Your task to perform on an android device: change keyboard looks Image 0: 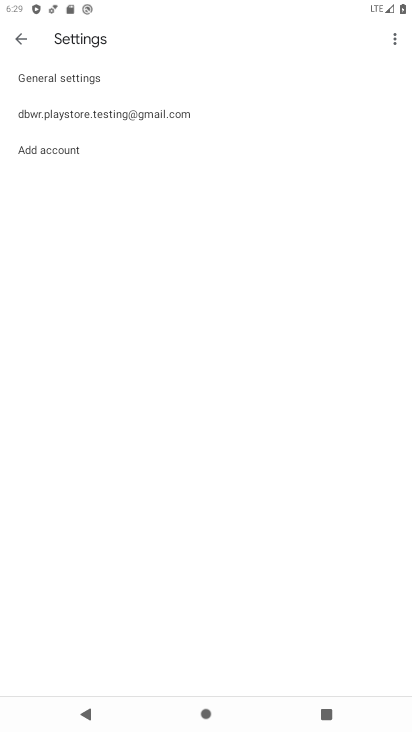
Step 0: press home button
Your task to perform on an android device: change keyboard looks Image 1: 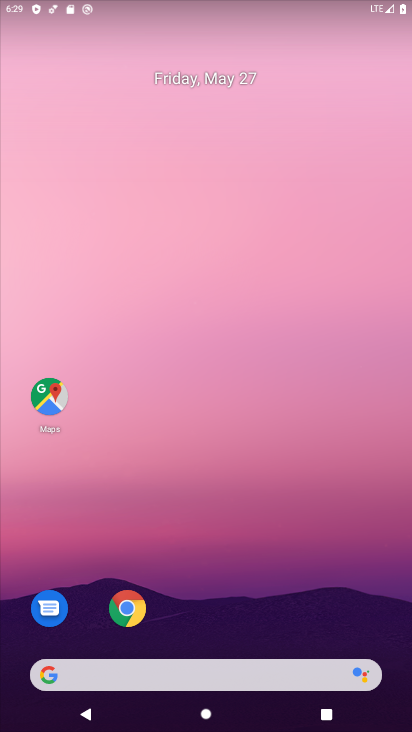
Step 1: drag from (210, 609) to (243, 36)
Your task to perform on an android device: change keyboard looks Image 2: 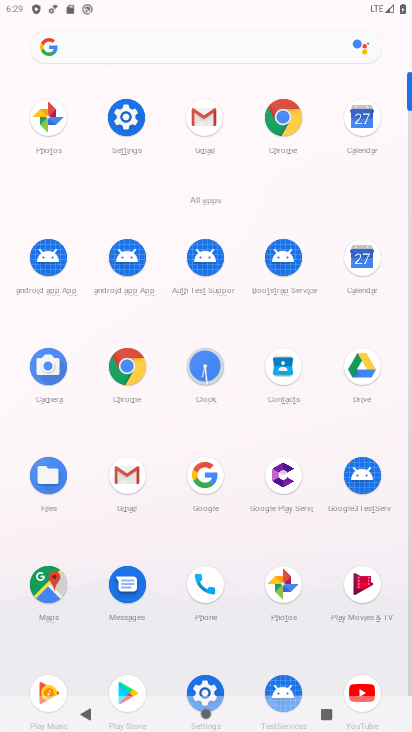
Step 2: click (123, 113)
Your task to perform on an android device: change keyboard looks Image 3: 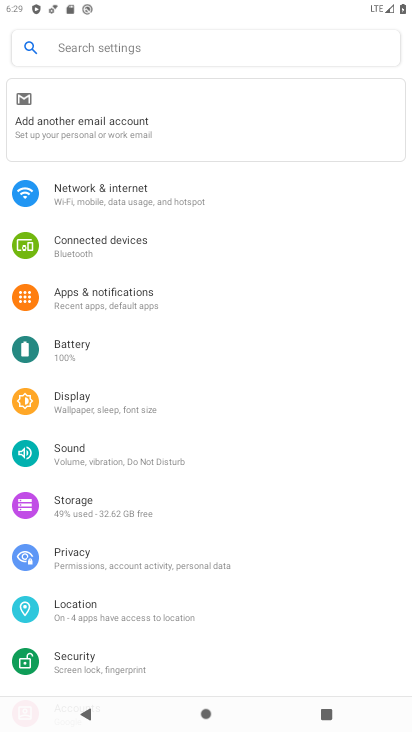
Step 3: drag from (126, 653) to (204, 163)
Your task to perform on an android device: change keyboard looks Image 4: 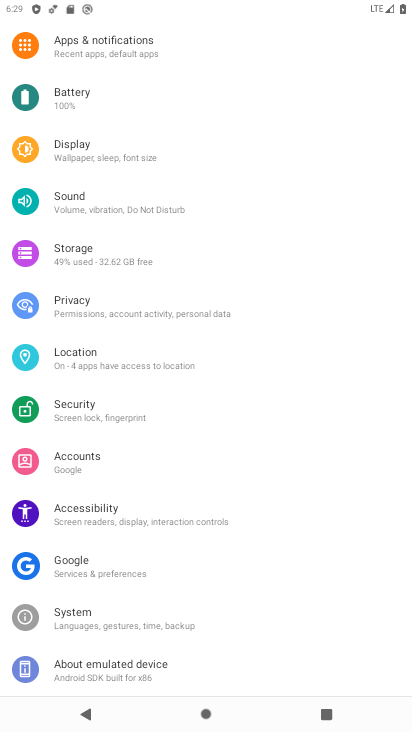
Step 4: click (101, 613)
Your task to perform on an android device: change keyboard looks Image 5: 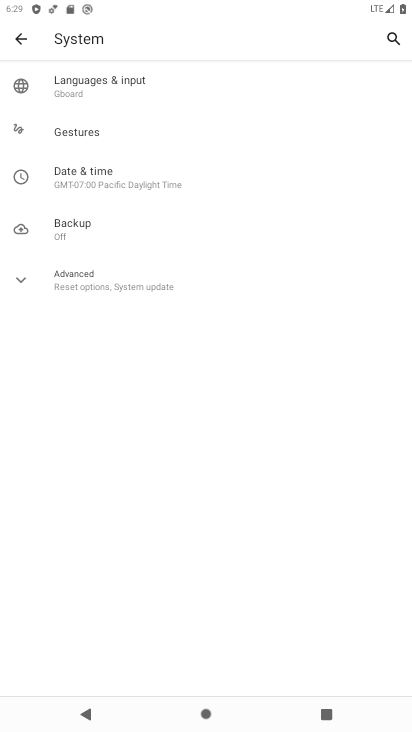
Step 5: click (108, 81)
Your task to perform on an android device: change keyboard looks Image 6: 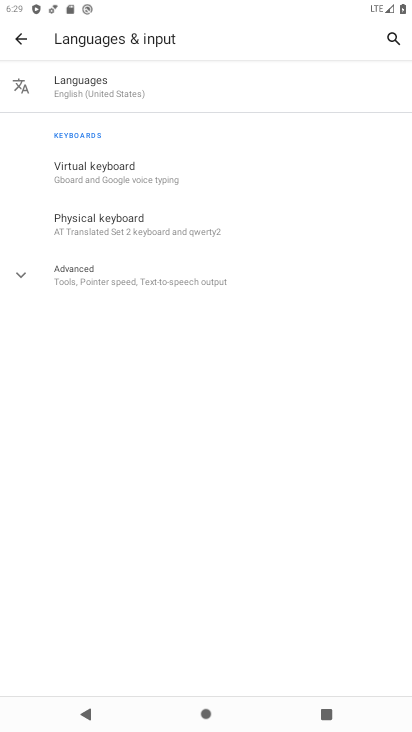
Step 6: click (139, 166)
Your task to perform on an android device: change keyboard looks Image 7: 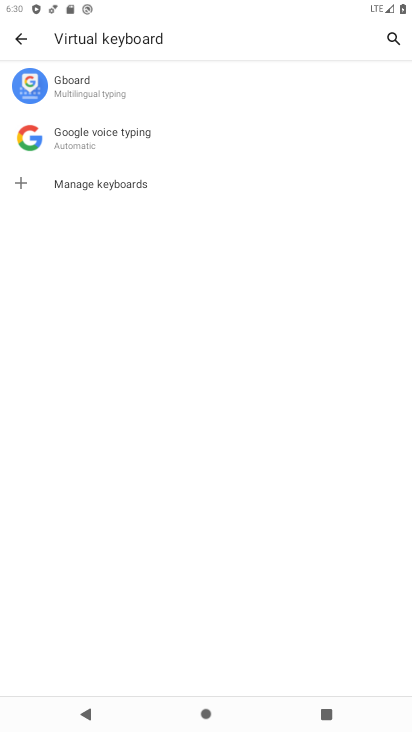
Step 7: click (104, 76)
Your task to perform on an android device: change keyboard looks Image 8: 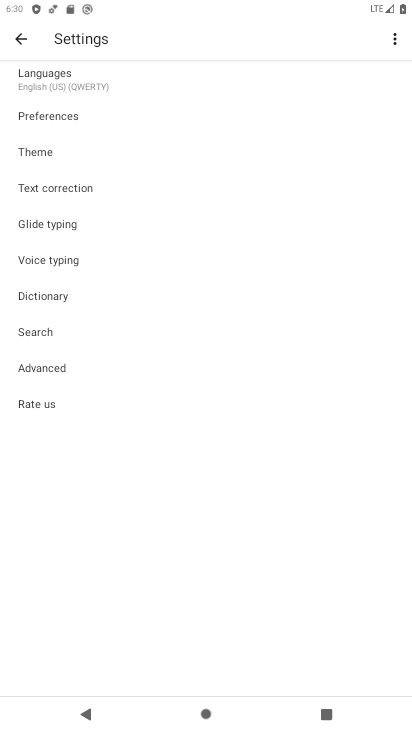
Step 8: click (83, 145)
Your task to perform on an android device: change keyboard looks Image 9: 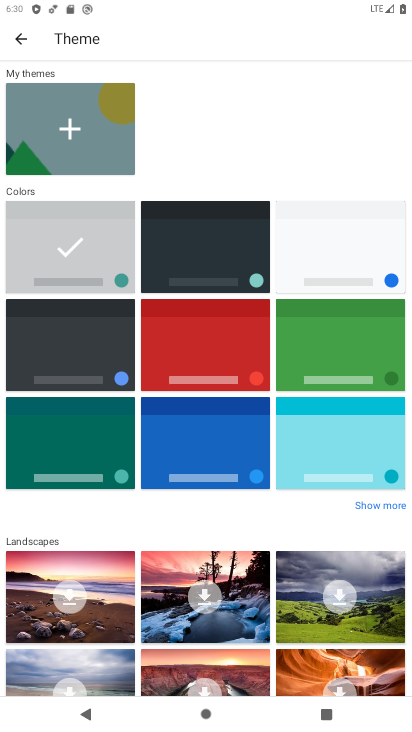
Step 9: click (54, 425)
Your task to perform on an android device: change keyboard looks Image 10: 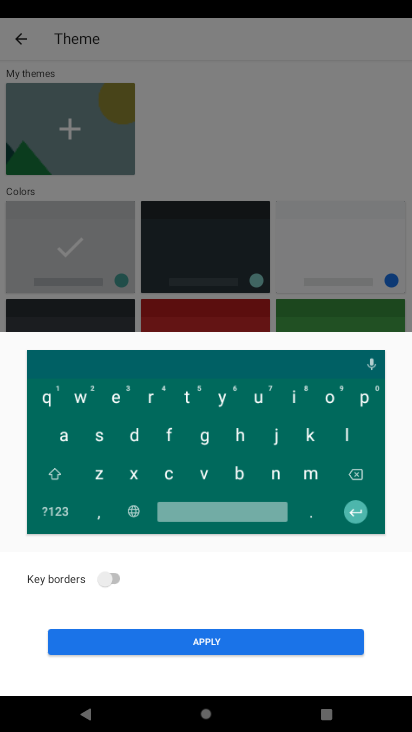
Step 10: click (211, 639)
Your task to perform on an android device: change keyboard looks Image 11: 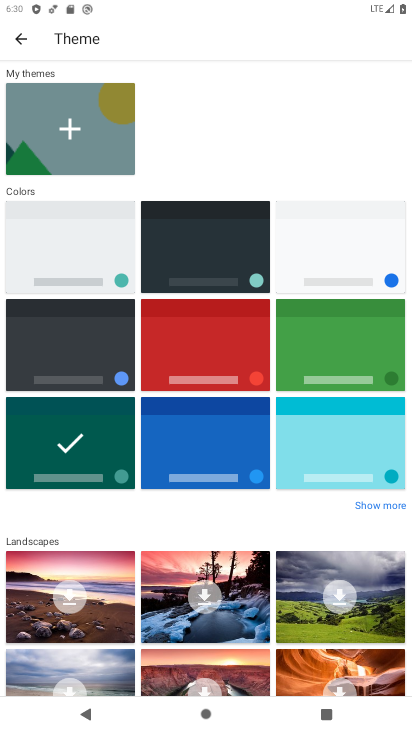
Step 11: task complete